Your task to perform on an android device: refresh tabs in the chrome app Image 0: 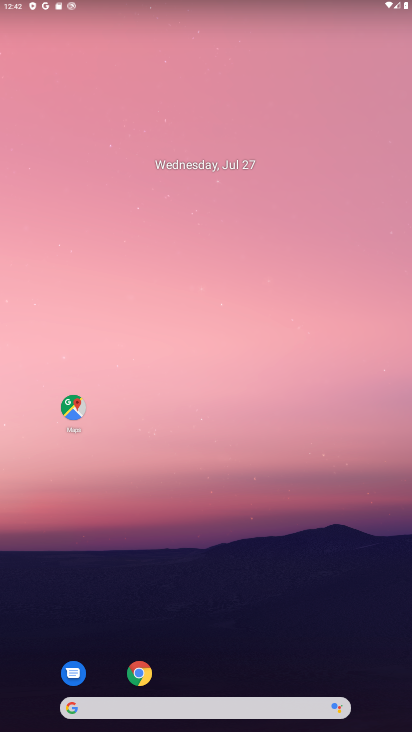
Step 0: click (144, 673)
Your task to perform on an android device: refresh tabs in the chrome app Image 1: 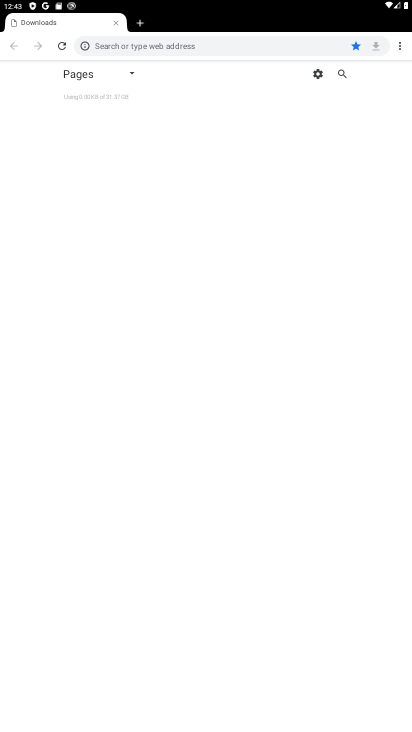
Step 1: click (400, 49)
Your task to perform on an android device: refresh tabs in the chrome app Image 2: 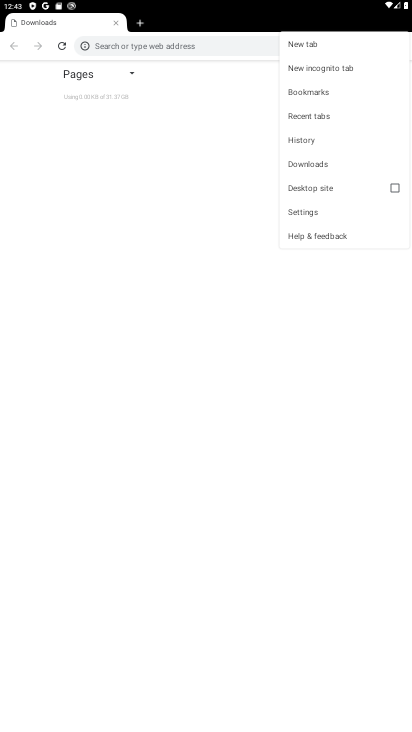
Step 2: click (70, 42)
Your task to perform on an android device: refresh tabs in the chrome app Image 3: 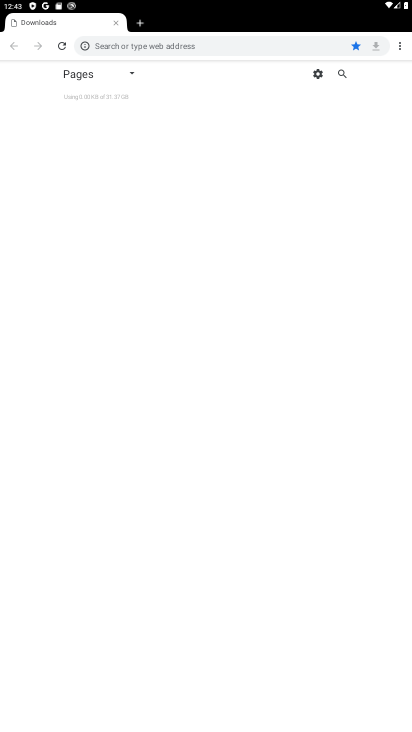
Step 3: click (62, 44)
Your task to perform on an android device: refresh tabs in the chrome app Image 4: 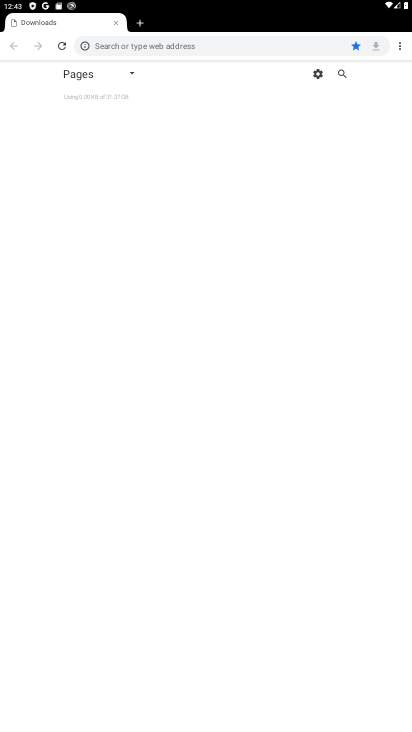
Step 4: click (60, 46)
Your task to perform on an android device: refresh tabs in the chrome app Image 5: 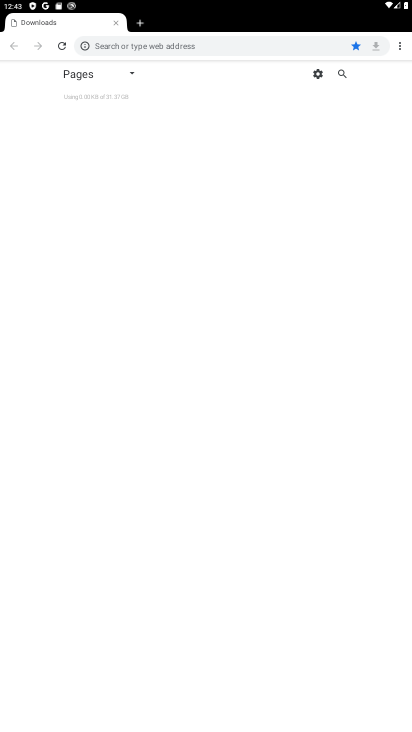
Step 5: task complete